Your task to perform on an android device: Open CNN.com Image 0: 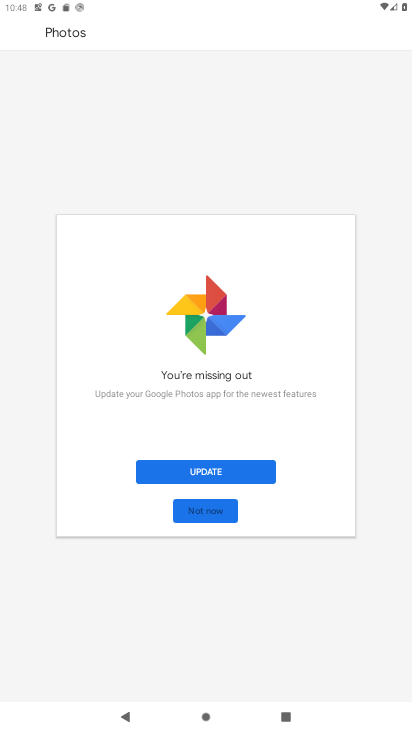
Step 0: press home button
Your task to perform on an android device: Open CNN.com Image 1: 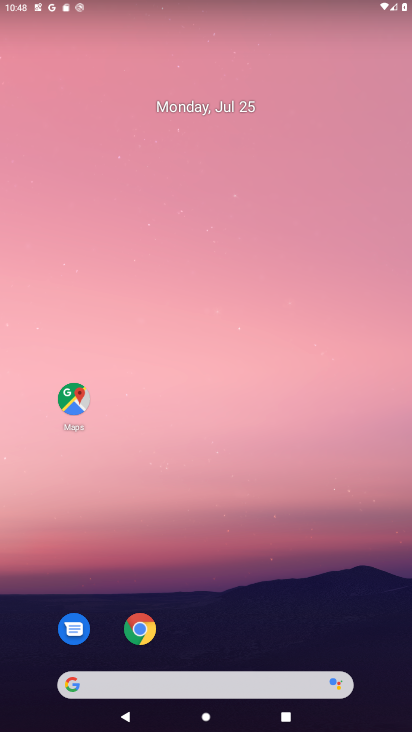
Step 1: click (139, 635)
Your task to perform on an android device: Open CNN.com Image 2: 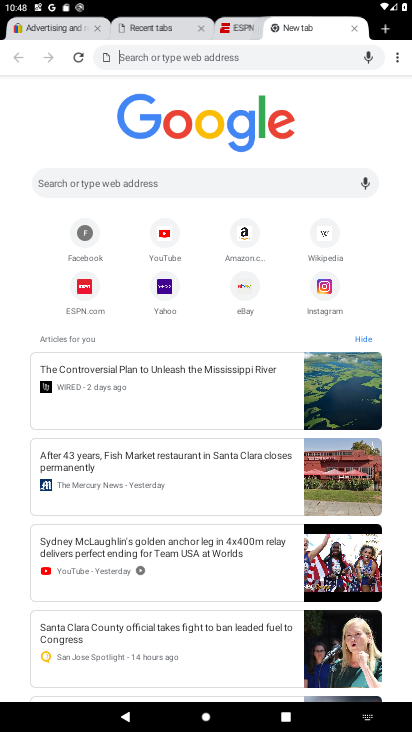
Step 2: click (74, 184)
Your task to perform on an android device: Open CNN.com Image 3: 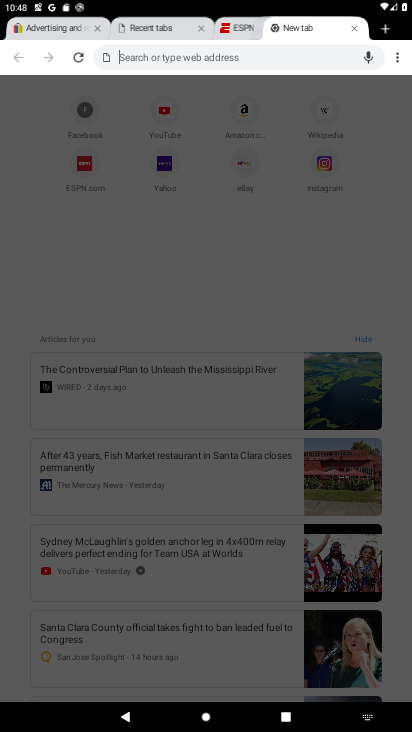
Step 3: type "cnn"
Your task to perform on an android device: Open CNN.com Image 4: 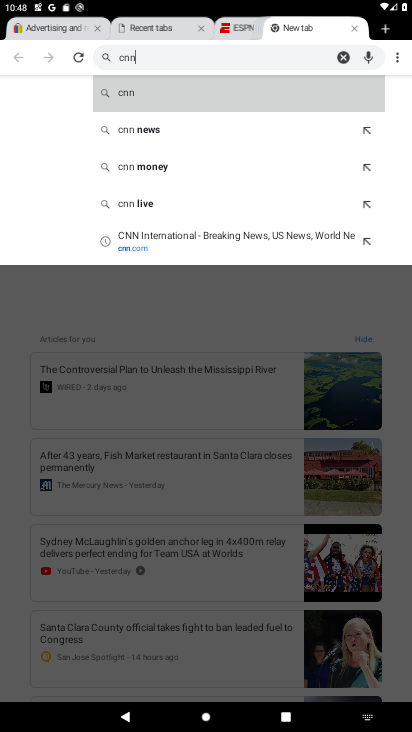
Step 4: click (118, 135)
Your task to perform on an android device: Open CNN.com Image 5: 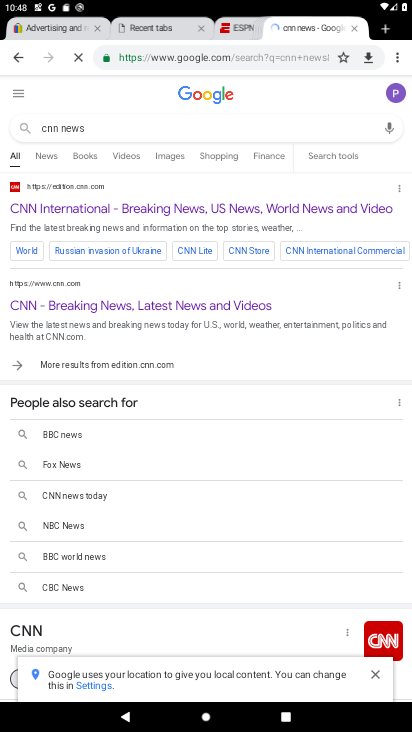
Step 5: task complete